Your task to perform on an android device: Open calendar and show me the first week of next month Image 0: 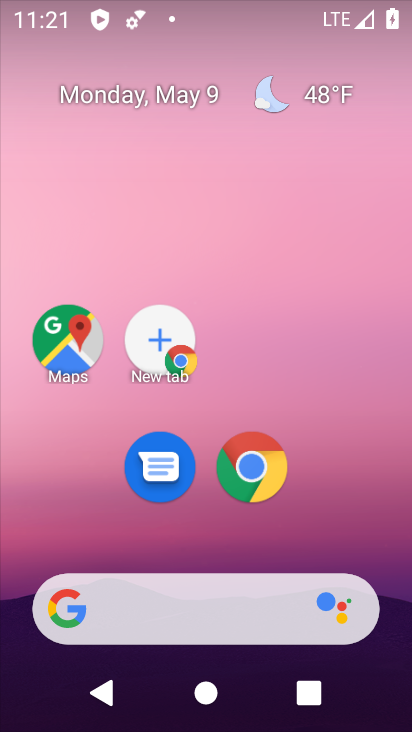
Step 0: click (240, 179)
Your task to perform on an android device: Open calendar and show me the first week of next month Image 1: 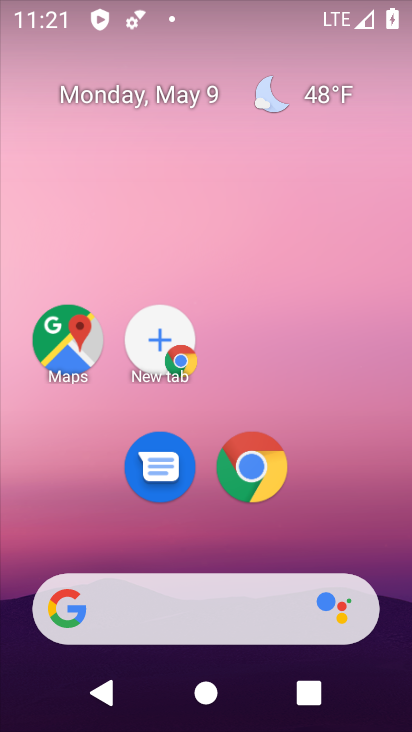
Step 1: drag from (346, 546) to (169, 148)
Your task to perform on an android device: Open calendar and show me the first week of next month Image 2: 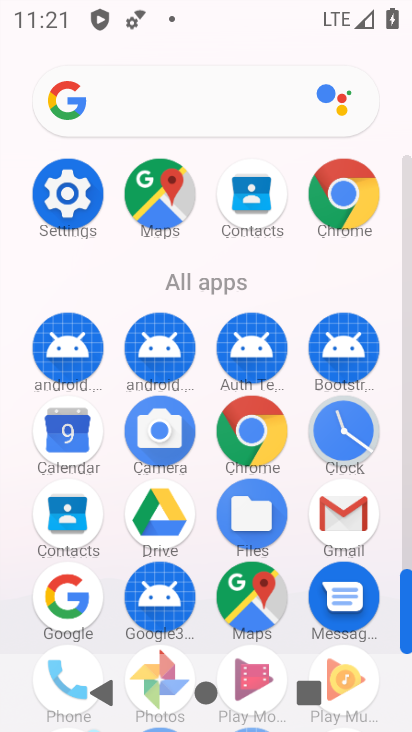
Step 2: click (63, 431)
Your task to perform on an android device: Open calendar and show me the first week of next month Image 3: 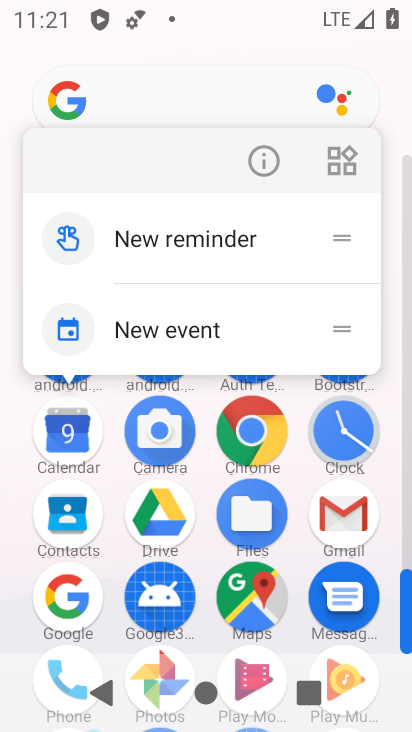
Step 3: click (64, 445)
Your task to perform on an android device: Open calendar and show me the first week of next month Image 4: 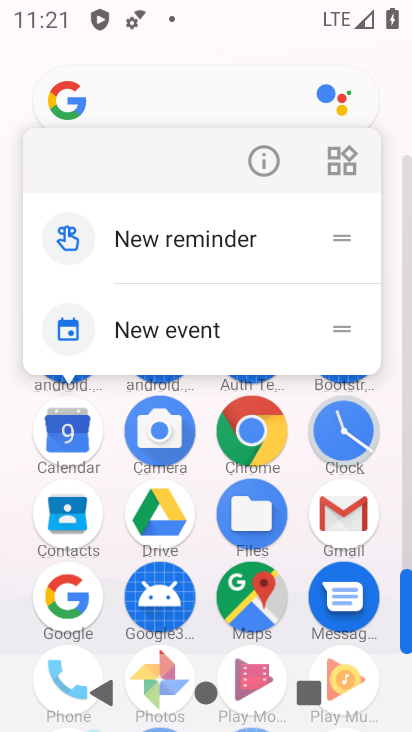
Step 4: click (64, 445)
Your task to perform on an android device: Open calendar and show me the first week of next month Image 5: 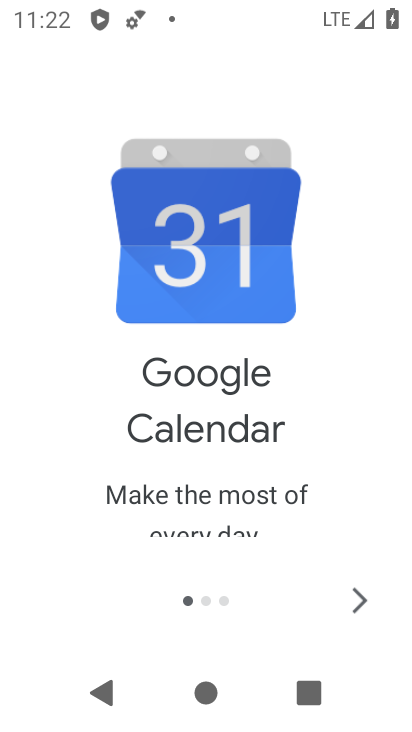
Step 5: click (355, 593)
Your task to perform on an android device: Open calendar and show me the first week of next month Image 6: 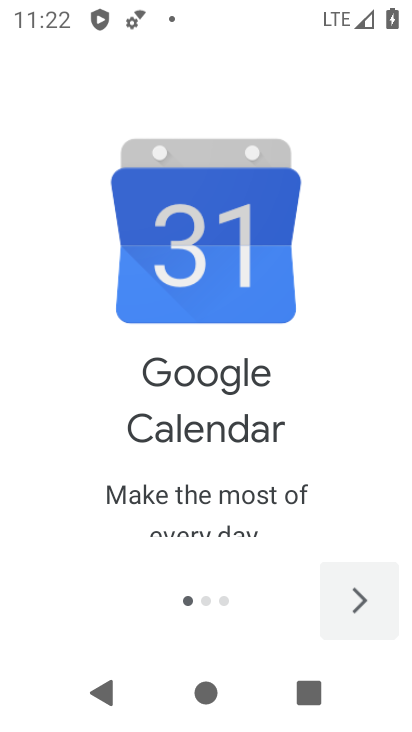
Step 6: click (355, 593)
Your task to perform on an android device: Open calendar and show me the first week of next month Image 7: 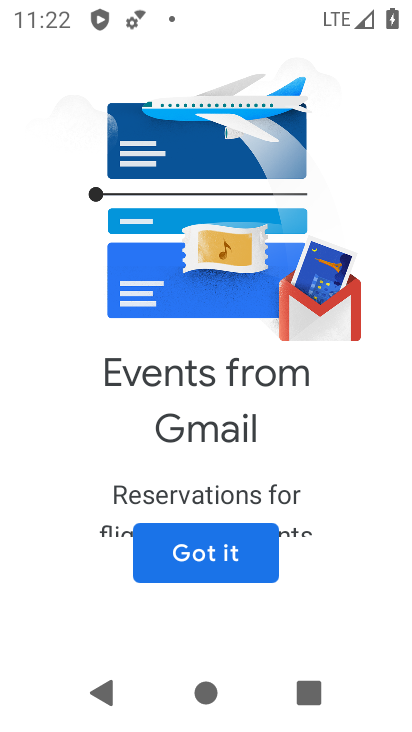
Step 7: click (201, 558)
Your task to perform on an android device: Open calendar and show me the first week of next month Image 8: 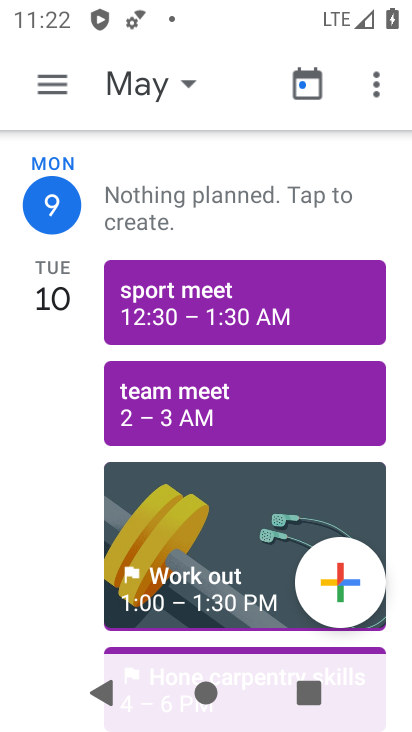
Step 8: click (181, 89)
Your task to perform on an android device: Open calendar and show me the first week of next month Image 9: 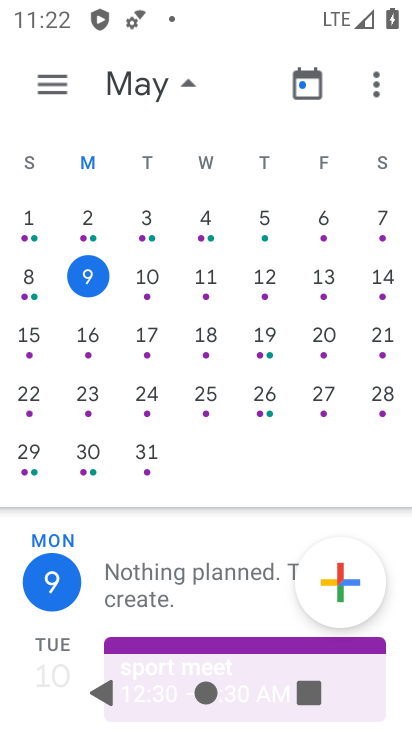
Step 9: task complete